Your task to perform on an android device: Go to Android settings Image 0: 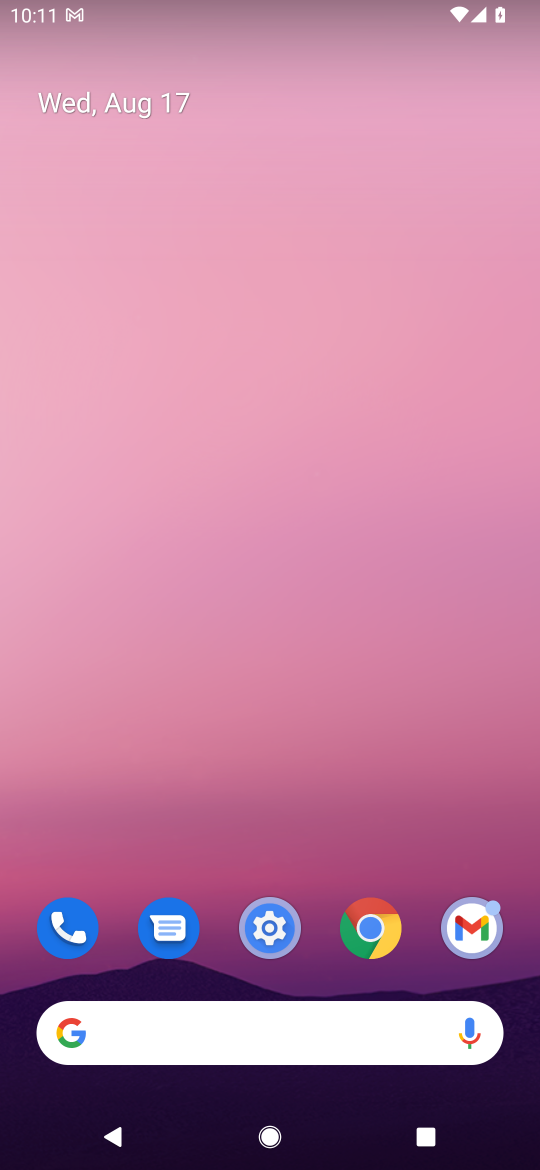
Step 0: click (271, 915)
Your task to perform on an android device: Go to Android settings Image 1: 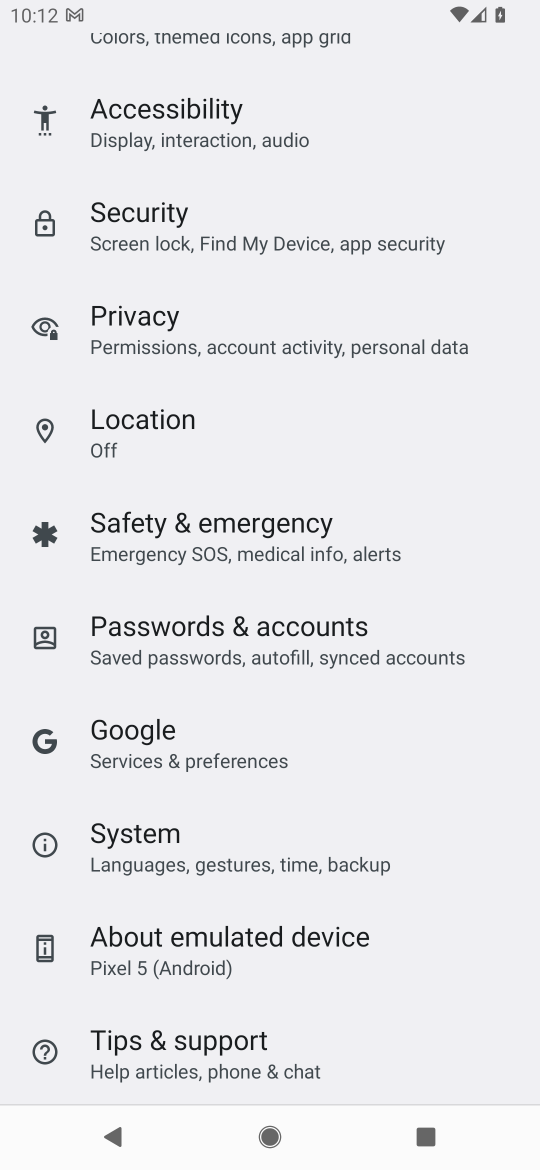
Step 1: task complete